Your task to perform on an android device: Open Chrome and go to the settings page Image 0: 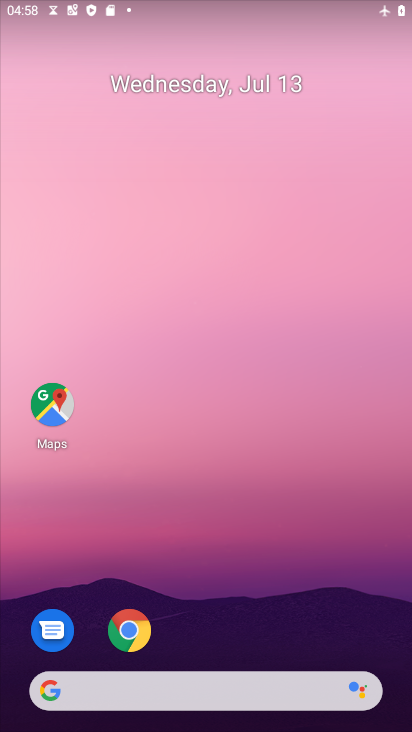
Step 0: drag from (72, 672) to (108, 195)
Your task to perform on an android device: Open Chrome and go to the settings page Image 1: 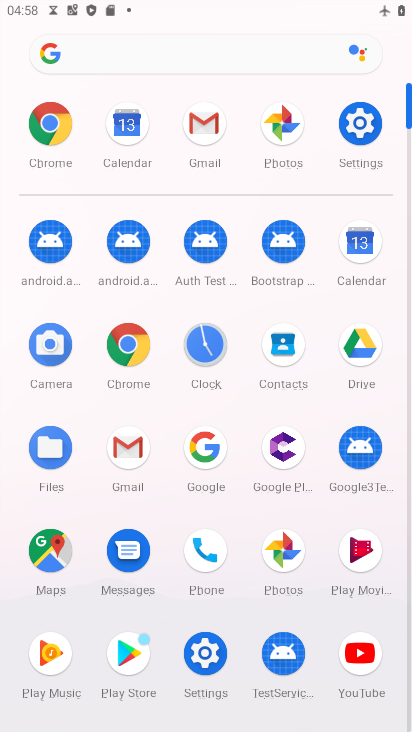
Step 1: click (125, 356)
Your task to perform on an android device: Open Chrome and go to the settings page Image 2: 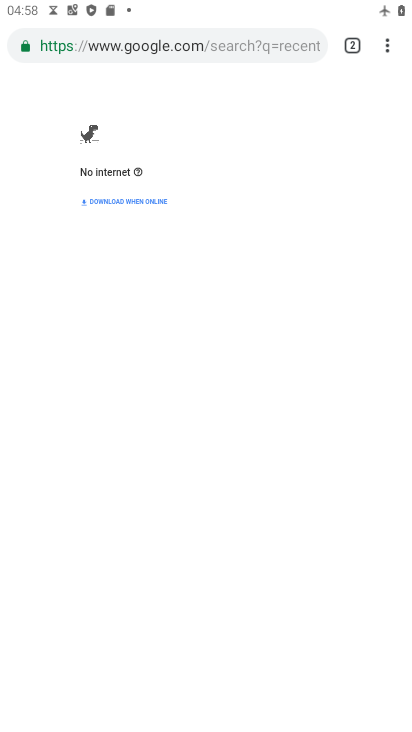
Step 2: task complete